Your task to perform on an android device: Open Yahoo.com Image 0: 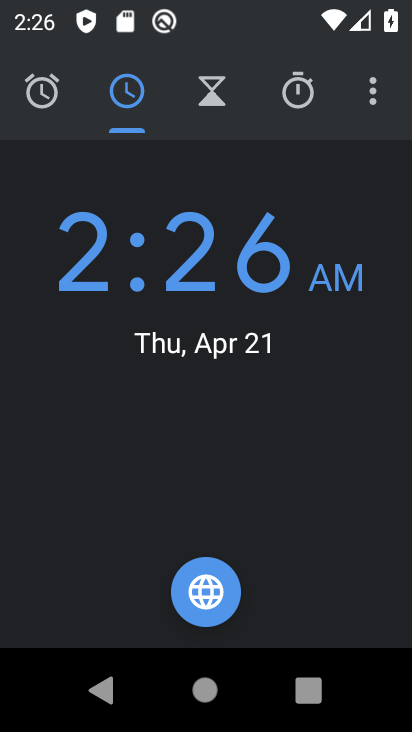
Step 0: press home button
Your task to perform on an android device: Open Yahoo.com Image 1: 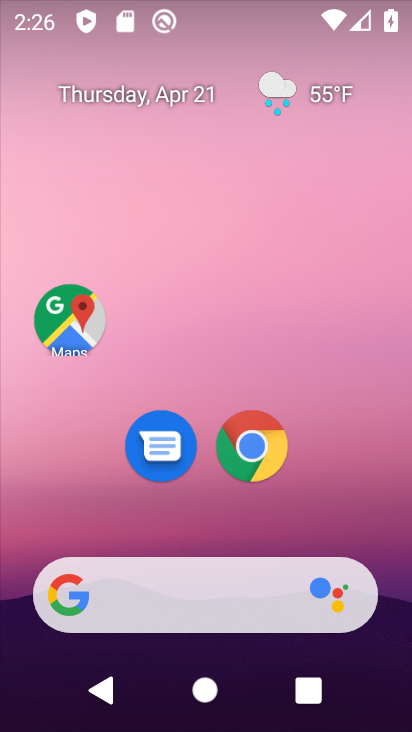
Step 1: click (251, 454)
Your task to perform on an android device: Open Yahoo.com Image 2: 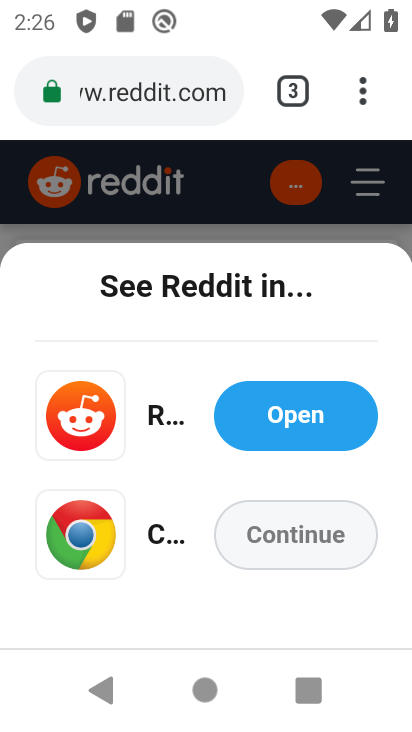
Step 2: click (360, 98)
Your task to perform on an android device: Open Yahoo.com Image 3: 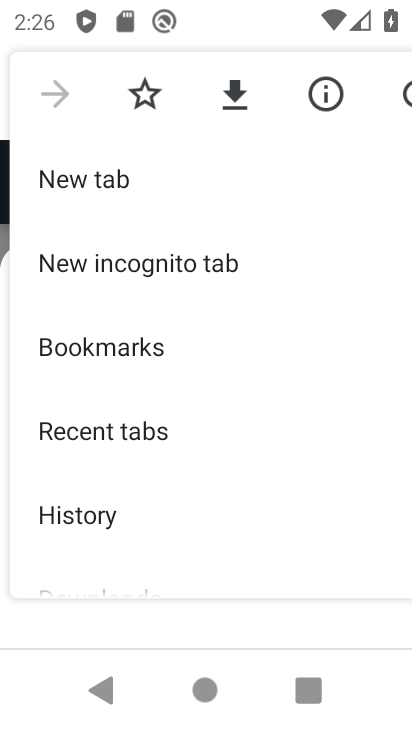
Step 3: click (90, 189)
Your task to perform on an android device: Open Yahoo.com Image 4: 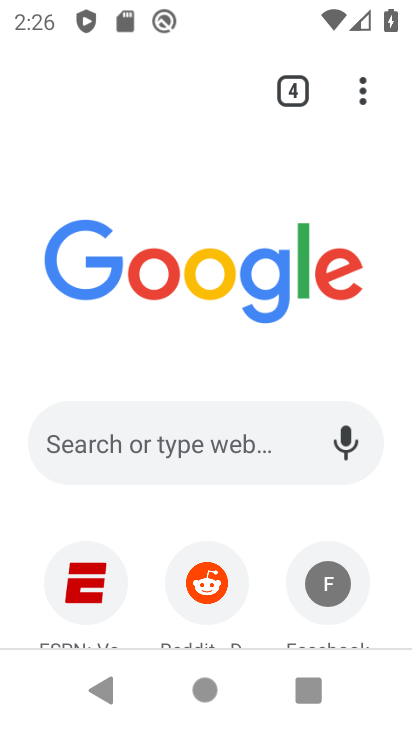
Step 4: click (201, 458)
Your task to perform on an android device: Open Yahoo.com Image 5: 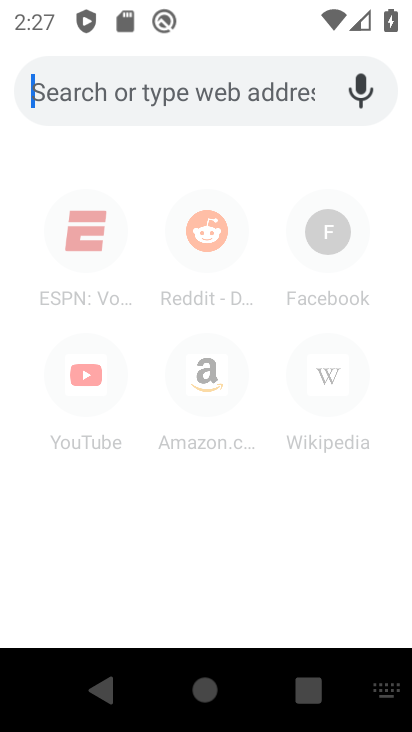
Step 5: type "Yahoo.com"
Your task to perform on an android device: Open Yahoo.com Image 6: 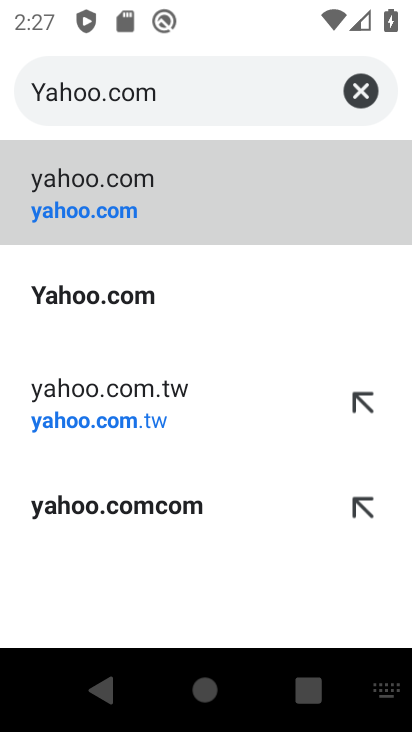
Step 6: click (110, 193)
Your task to perform on an android device: Open Yahoo.com Image 7: 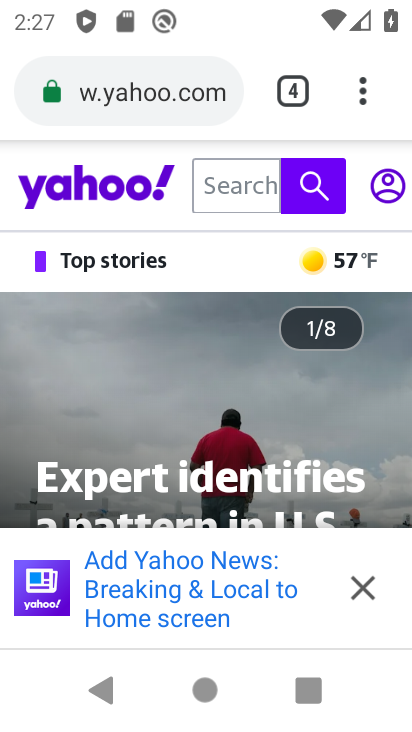
Step 7: task complete